Your task to perform on an android device: Open Wikipedia Image 0: 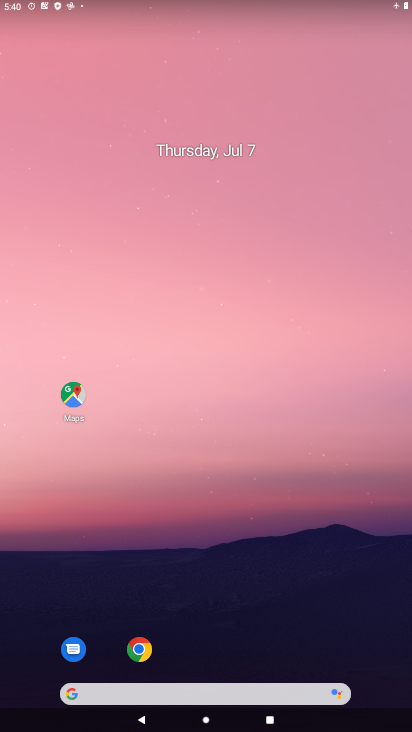
Step 0: drag from (348, 664) to (371, 6)
Your task to perform on an android device: Open Wikipedia Image 1: 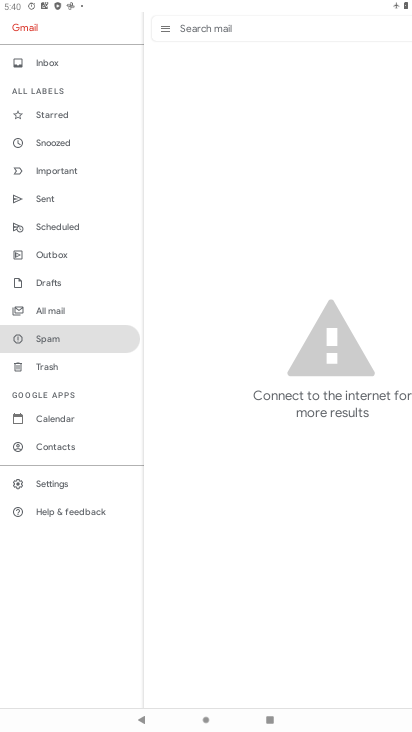
Step 1: press home button
Your task to perform on an android device: Open Wikipedia Image 2: 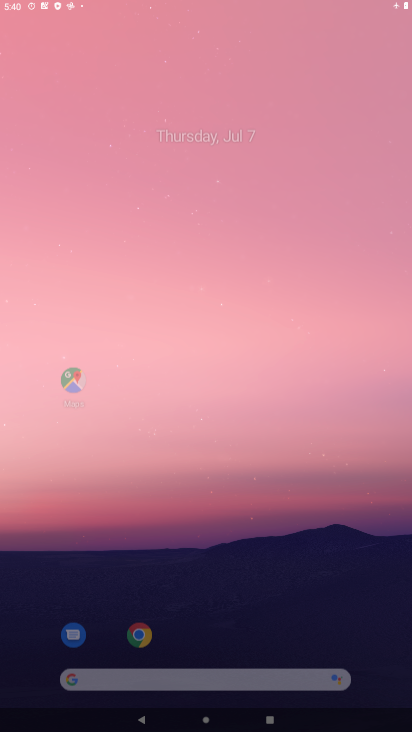
Step 2: drag from (384, 684) to (249, 0)
Your task to perform on an android device: Open Wikipedia Image 3: 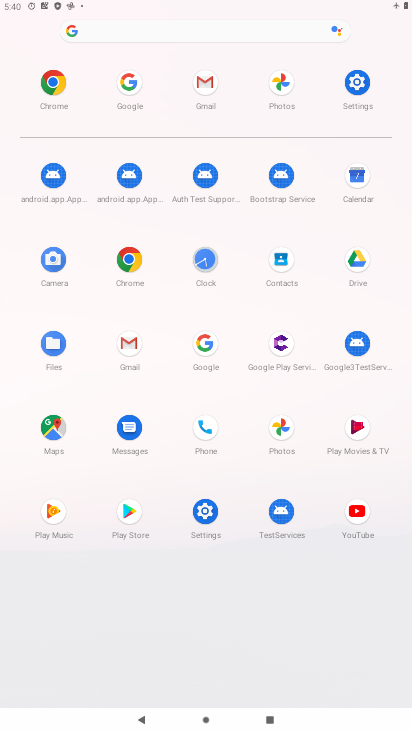
Step 3: click (114, 72)
Your task to perform on an android device: Open Wikipedia Image 4: 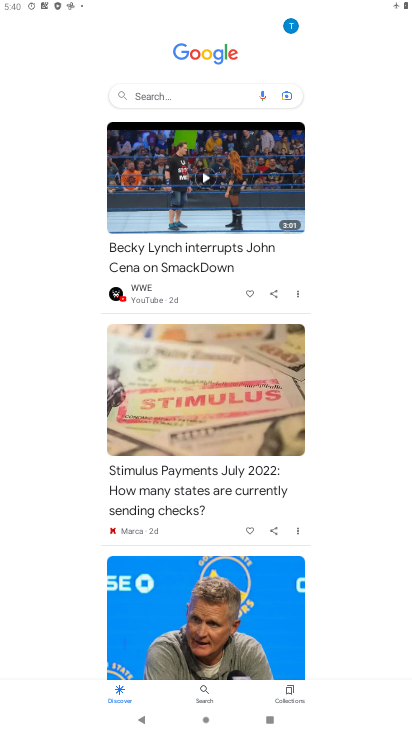
Step 4: click (164, 89)
Your task to perform on an android device: Open Wikipedia Image 5: 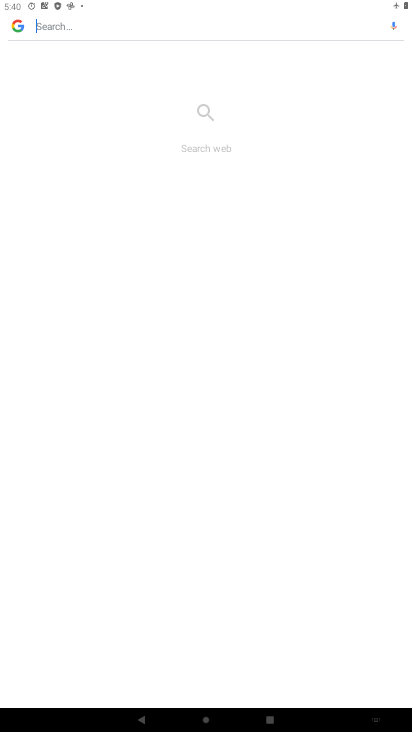
Step 5: type "Open Wikipedia"
Your task to perform on an android device: Open Wikipedia Image 6: 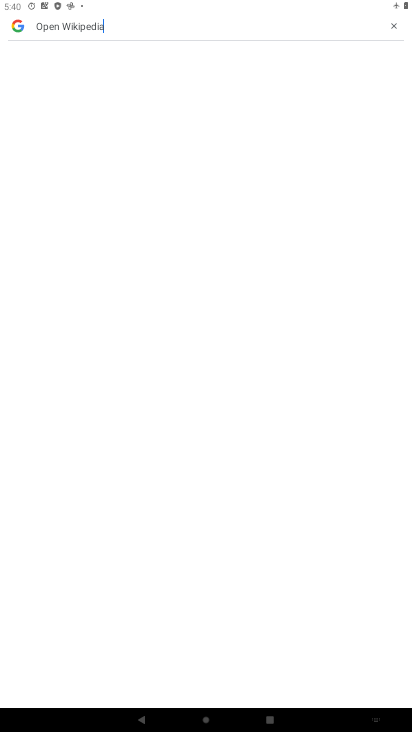
Step 6: task complete